Your task to perform on an android device: Open Google Maps Image 0: 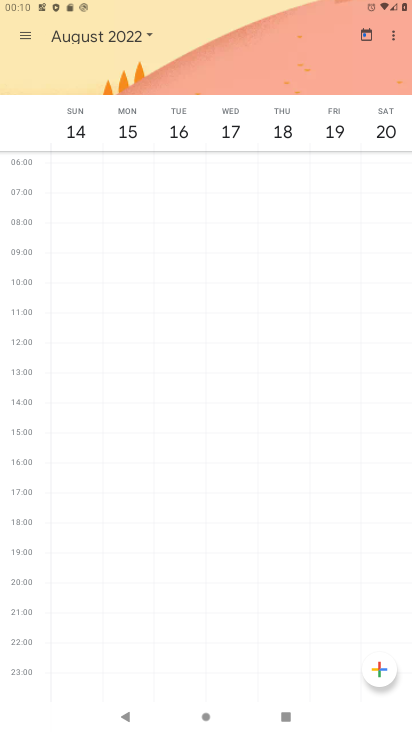
Step 0: press home button
Your task to perform on an android device: Open Google Maps Image 1: 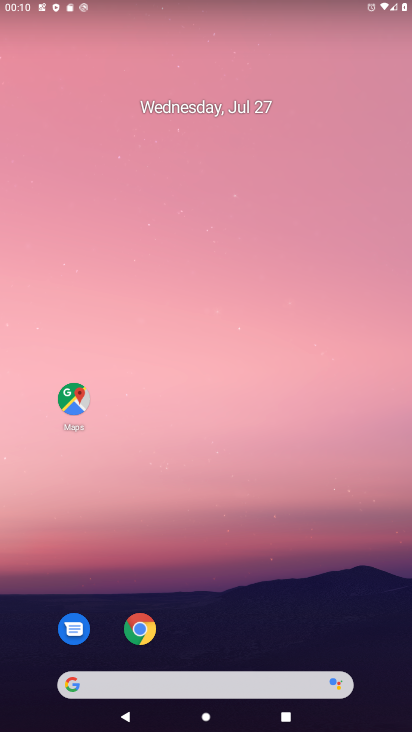
Step 1: drag from (229, 712) to (225, 148)
Your task to perform on an android device: Open Google Maps Image 2: 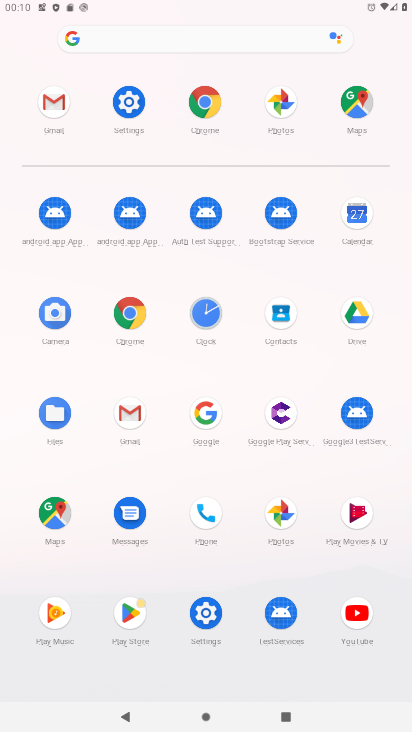
Step 2: click (47, 512)
Your task to perform on an android device: Open Google Maps Image 3: 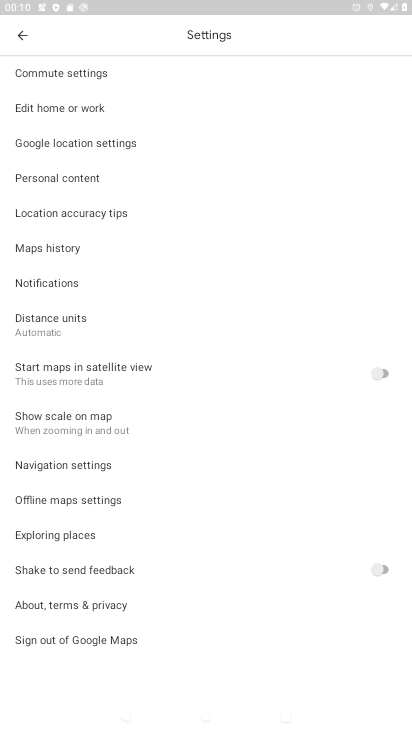
Step 3: click (21, 36)
Your task to perform on an android device: Open Google Maps Image 4: 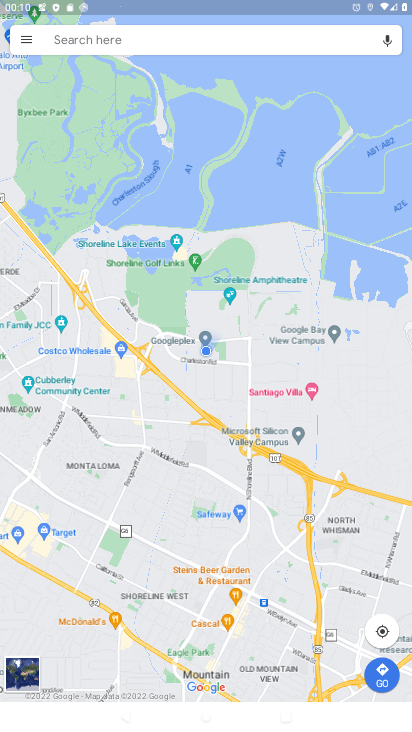
Step 4: task complete